Your task to perform on an android device: turn on data saver in the chrome app Image 0: 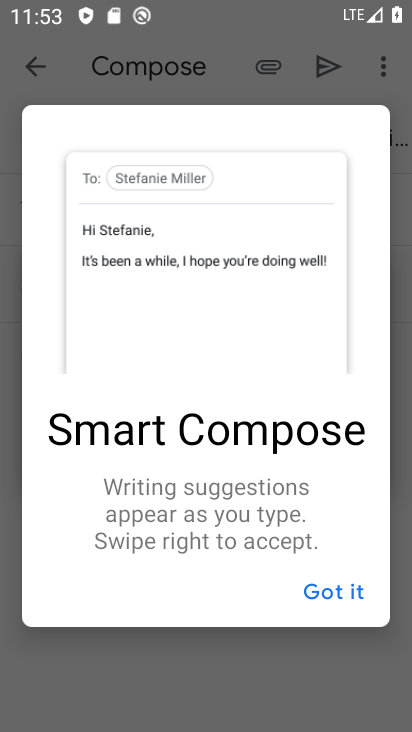
Step 0: press home button
Your task to perform on an android device: turn on data saver in the chrome app Image 1: 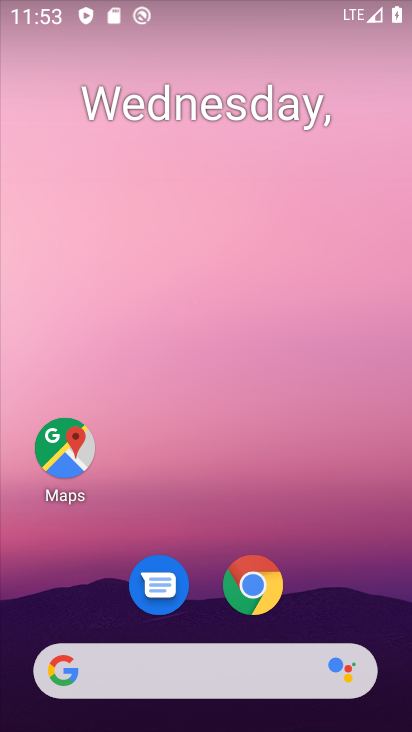
Step 1: click (248, 578)
Your task to perform on an android device: turn on data saver in the chrome app Image 2: 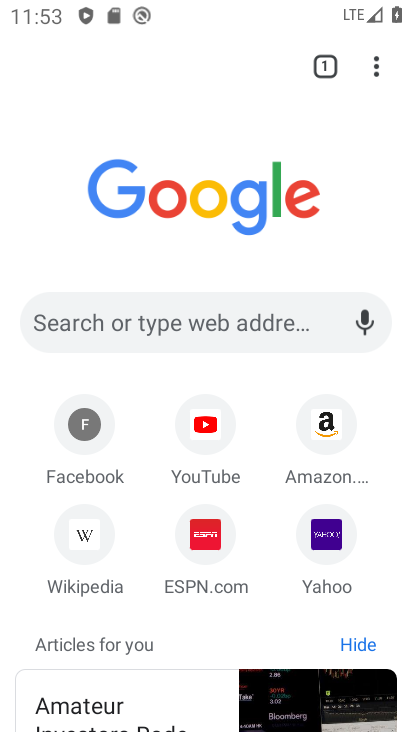
Step 2: click (378, 67)
Your task to perform on an android device: turn on data saver in the chrome app Image 3: 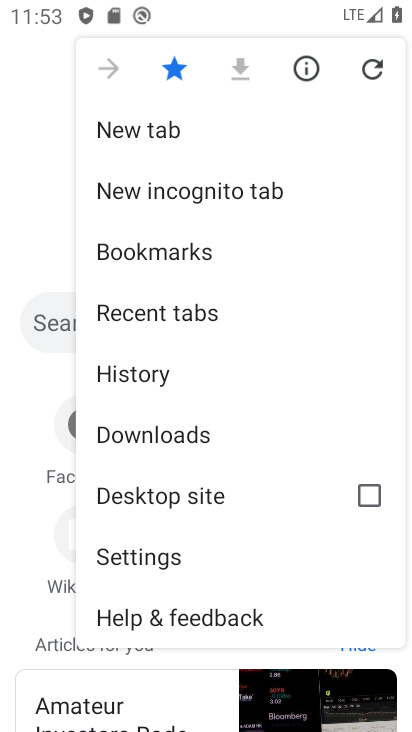
Step 3: click (169, 552)
Your task to perform on an android device: turn on data saver in the chrome app Image 4: 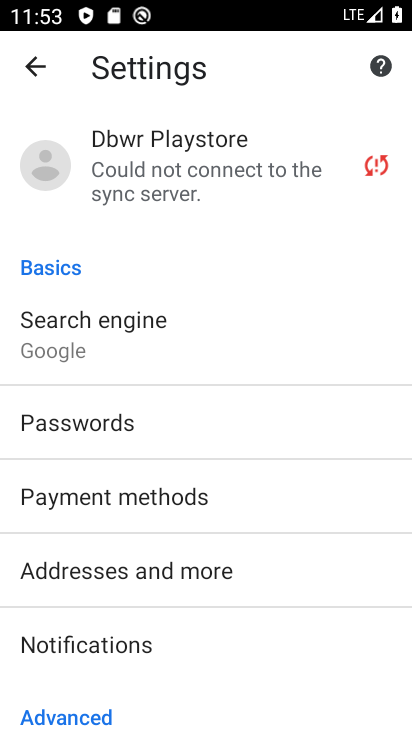
Step 4: drag from (230, 645) to (204, 184)
Your task to perform on an android device: turn on data saver in the chrome app Image 5: 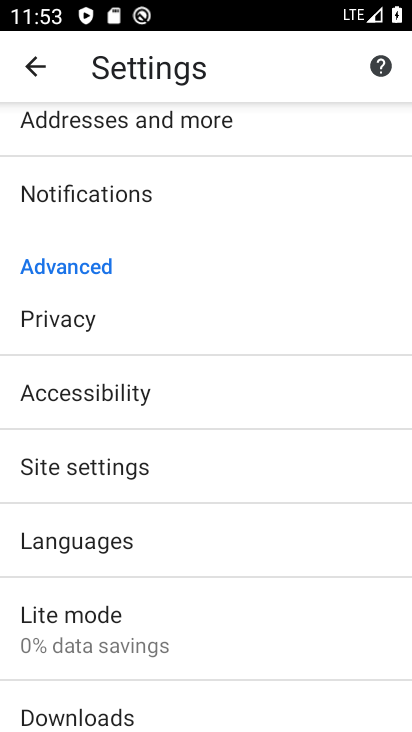
Step 5: click (199, 622)
Your task to perform on an android device: turn on data saver in the chrome app Image 6: 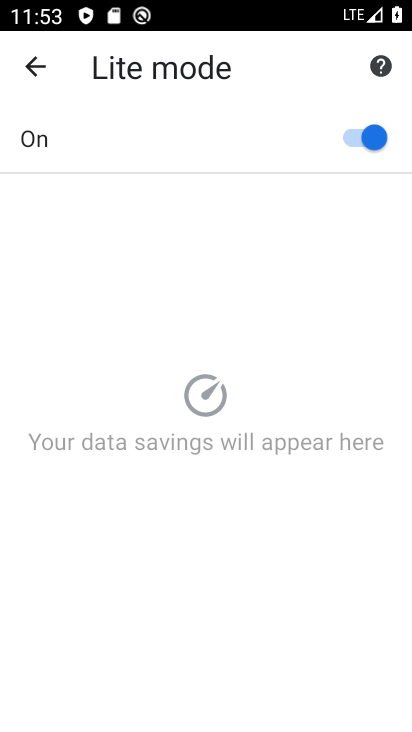
Step 6: task complete